Your task to perform on an android device: delete the emails in spam in the gmail app Image 0: 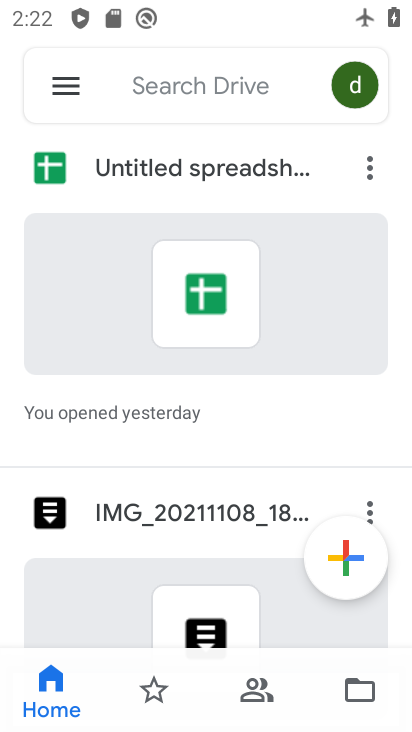
Step 0: press home button
Your task to perform on an android device: delete the emails in spam in the gmail app Image 1: 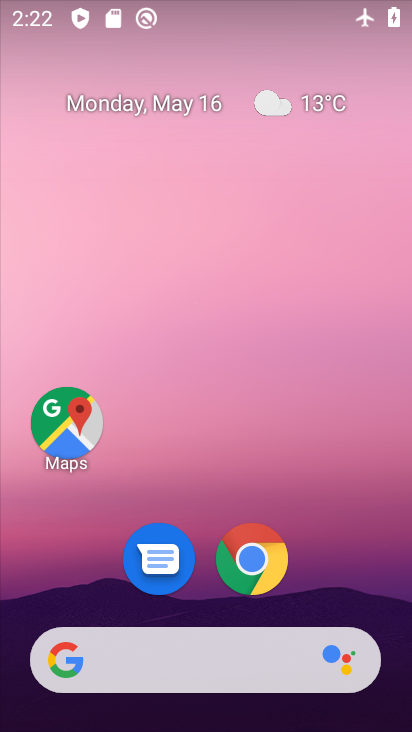
Step 1: drag from (177, 602) to (112, 85)
Your task to perform on an android device: delete the emails in spam in the gmail app Image 2: 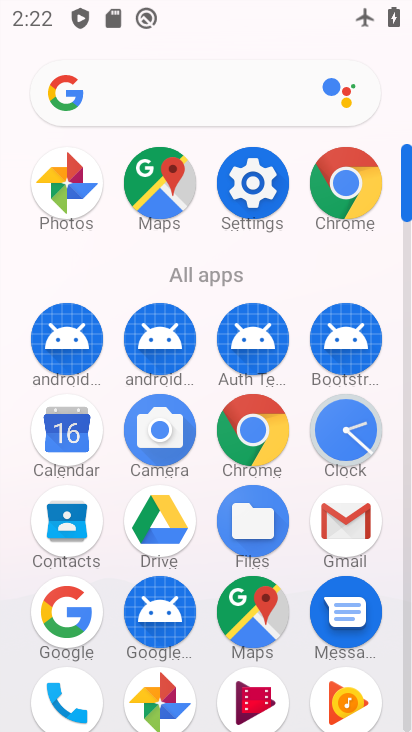
Step 2: click (347, 533)
Your task to perform on an android device: delete the emails in spam in the gmail app Image 3: 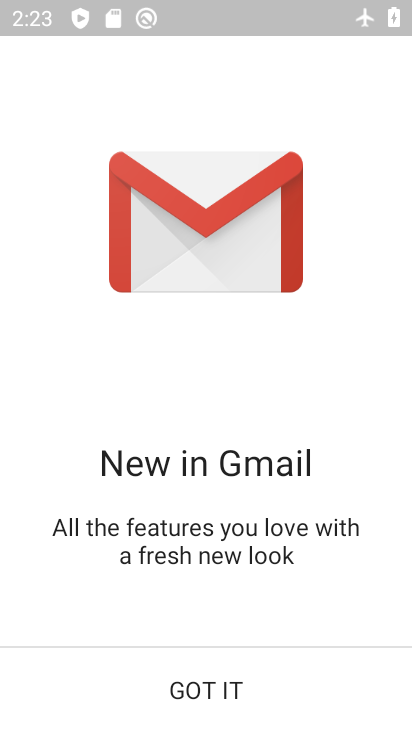
Step 3: click (230, 699)
Your task to perform on an android device: delete the emails in spam in the gmail app Image 4: 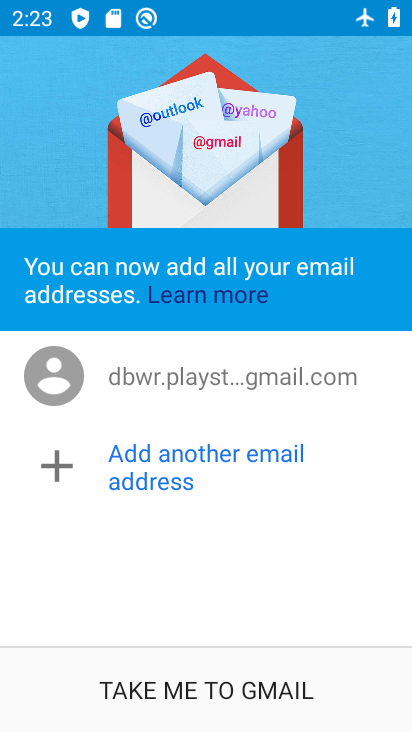
Step 4: click (227, 696)
Your task to perform on an android device: delete the emails in spam in the gmail app Image 5: 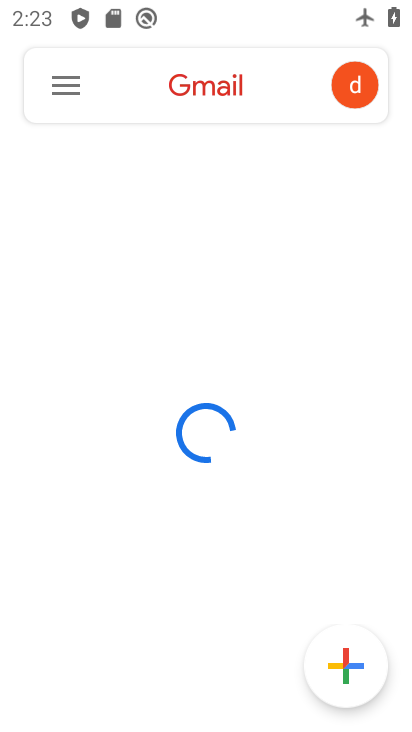
Step 5: click (46, 92)
Your task to perform on an android device: delete the emails in spam in the gmail app Image 6: 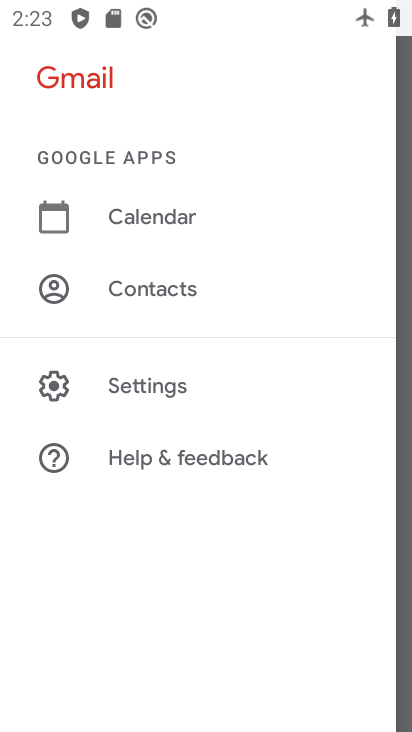
Step 6: click (408, 298)
Your task to perform on an android device: delete the emails in spam in the gmail app Image 7: 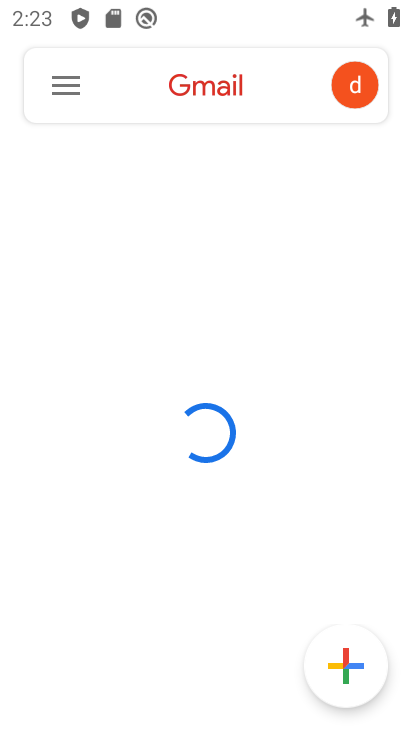
Step 7: click (64, 92)
Your task to perform on an android device: delete the emails in spam in the gmail app Image 8: 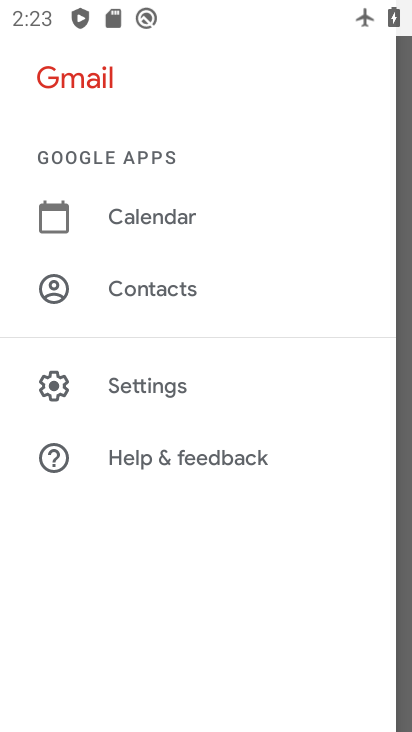
Step 8: task complete